Your task to perform on an android device: turn off javascript in the chrome app Image 0: 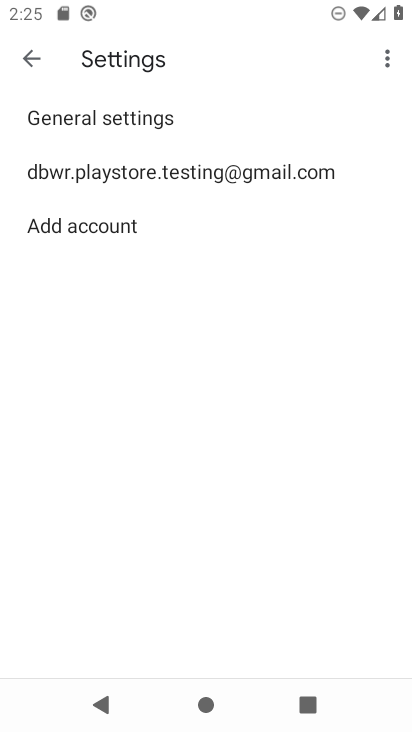
Step 0: press home button
Your task to perform on an android device: turn off javascript in the chrome app Image 1: 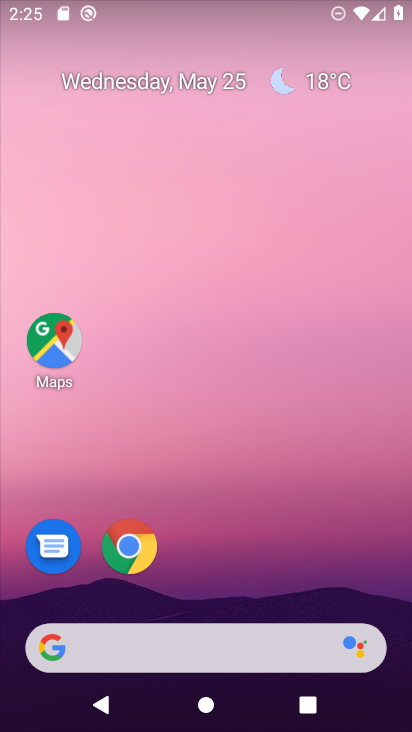
Step 1: click (130, 556)
Your task to perform on an android device: turn off javascript in the chrome app Image 2: 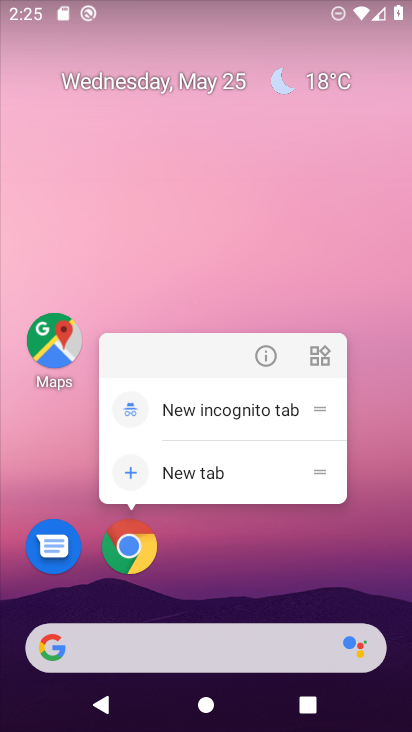
Step 2: click (263, 359)
Your task to perform on an android device: turn off javascript in the chrome app Image 3: 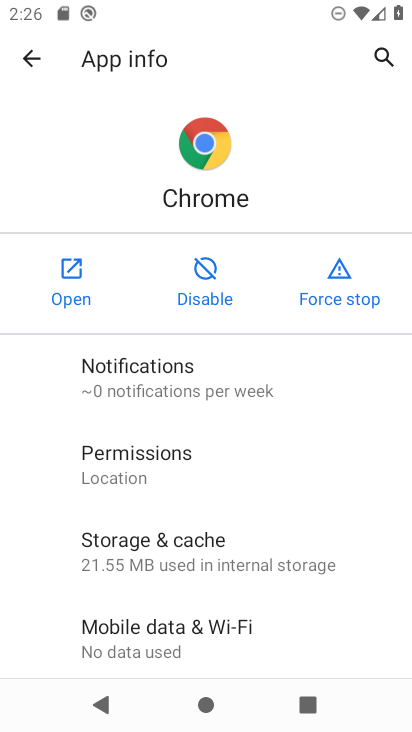
Step 3: click (80, 280)
Your task to perform on an android device: turn off javascript in the chrome app Image 4: 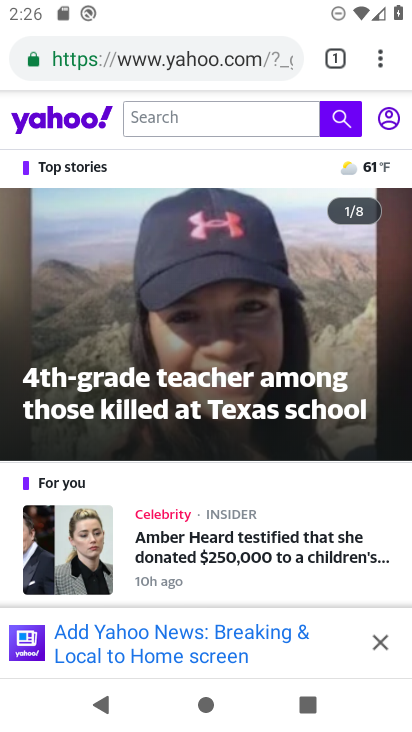
Step 4: click (398, 57)
Your task to perform on an android device: turn off javascript in the chrome app Image 5: 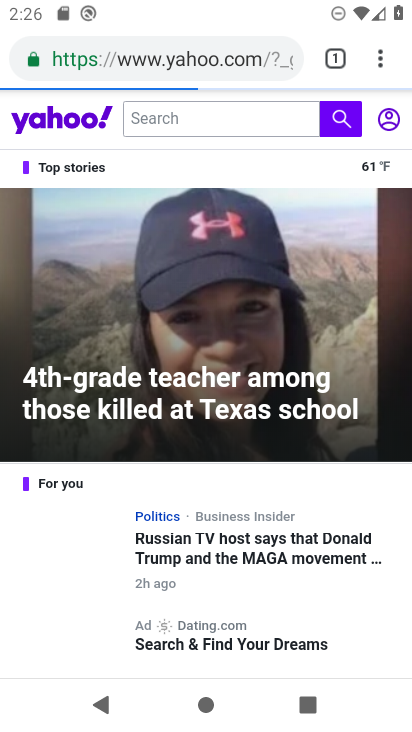
Step 5: click (380, 57)
Your task to perform on an android device: turn off javascript in the chrome app Image 6: 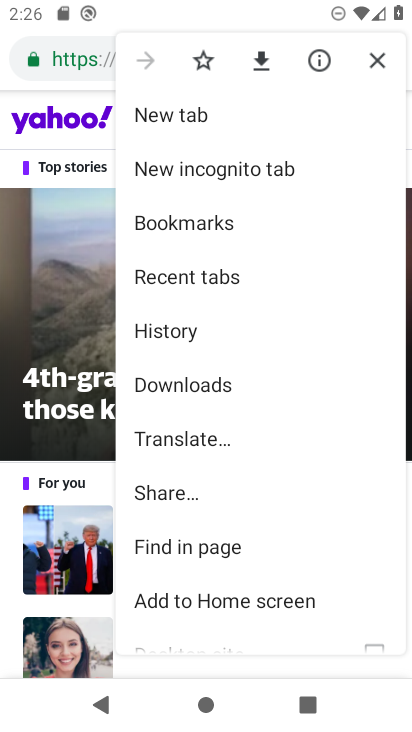
Step 6: drag from (214, 554) to (253, 145)
Your task to perform on an android device: turn off javascript in the chrome app Image 7: 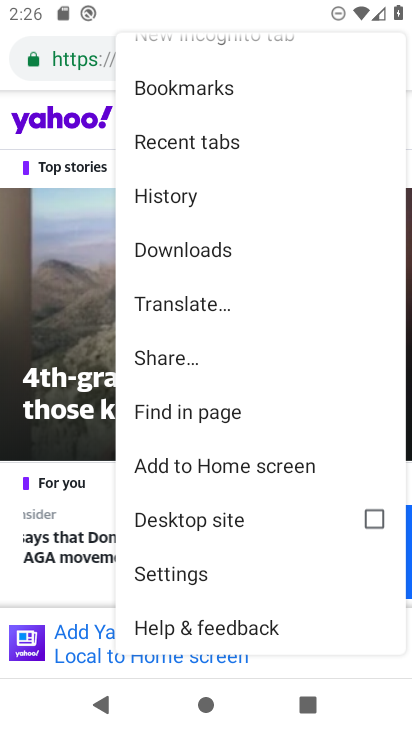
Step 7: click (192, 578)
Your task to perform on an android device: turn off javascript in the chrome app Image 8: 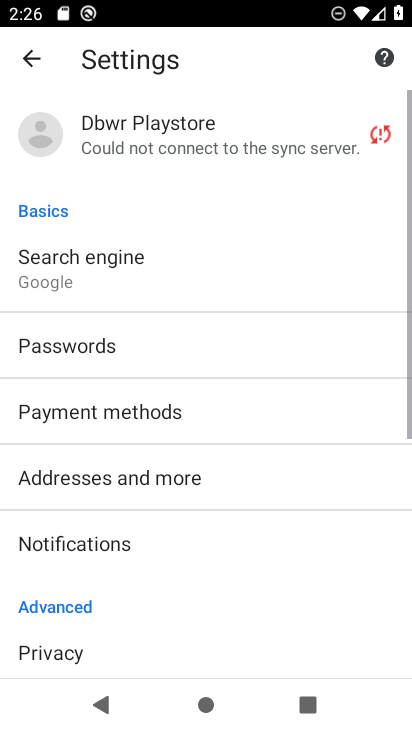
Step 8: drag from (155, 585) to (216, 205)
Your task to perform on an android device: turn off javascript in the chrome app Image 9: 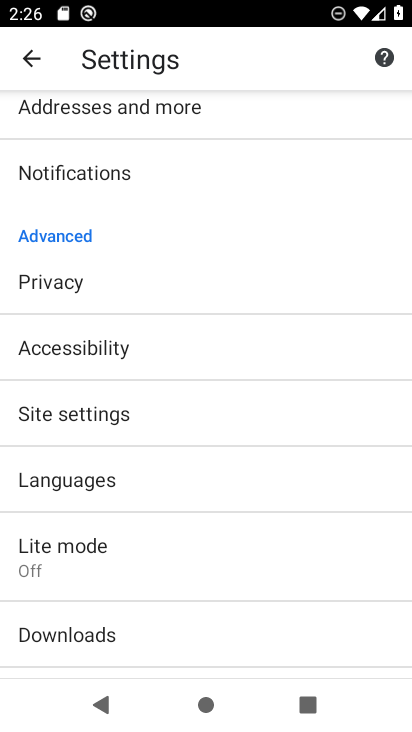
Step 9: drag from (186, 524) to (193, 308)
Your task to perform on an android device: turn off javascript in the chrome app Image 10: 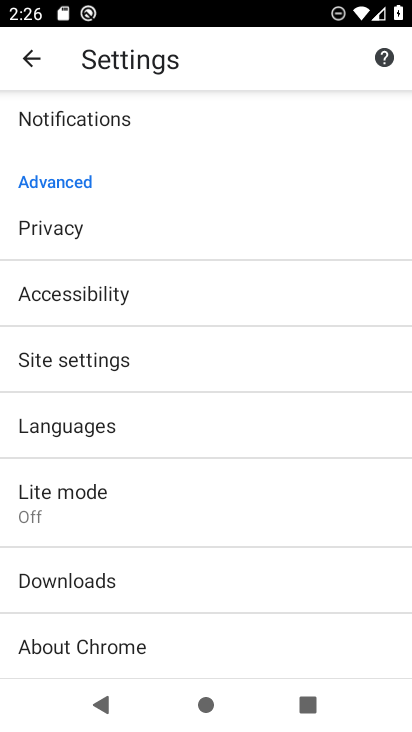
Step 10: click (110, 369)
Your task to perform on an android device: turn off javascript in the chrome app Image 11: 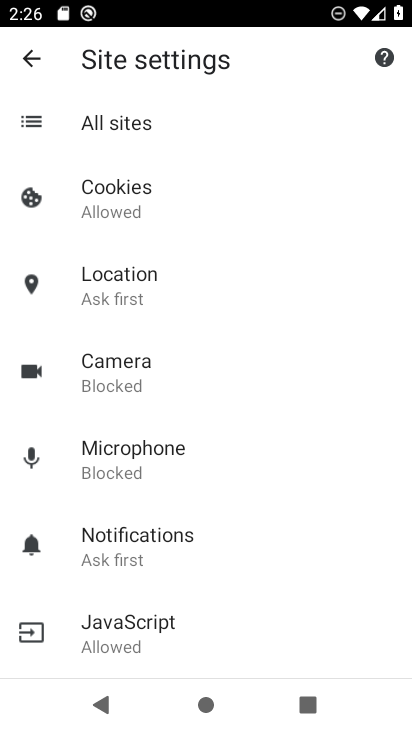
Step 11: click (128, 625)
Your task to perform on an android device: turn off javascript in the chrome app Image 12: 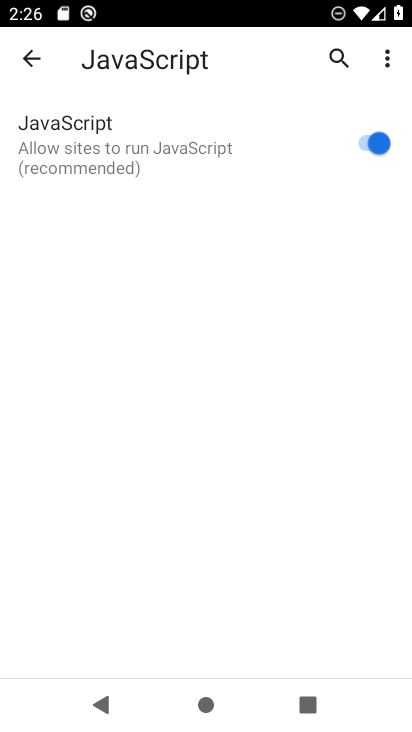
Step 12: click (345, 144)
Your task to perform on an android device: turn off javascript in the chrome app Image 13: 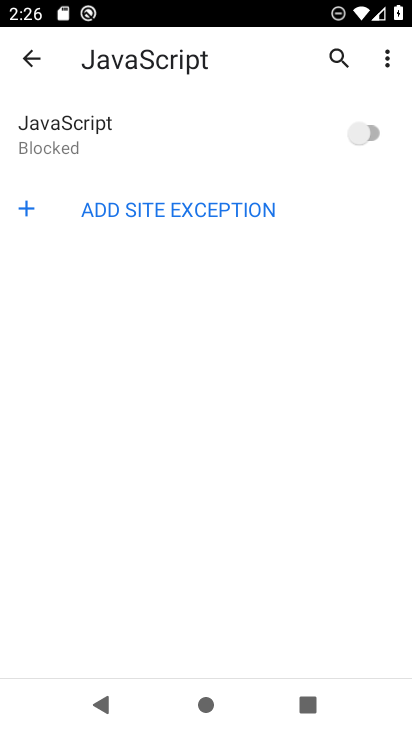
Step 13: task complete